Your task to perform on an android device: check google app version Image 0: 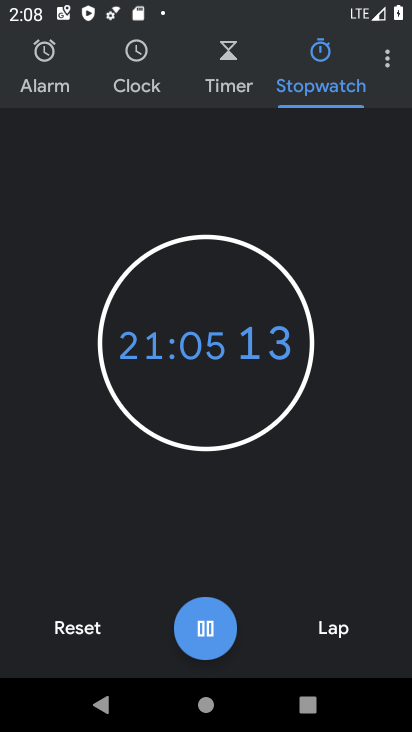
Step 0: drag from (128, 265) to (144, 424)
Your task to perform on an android device: check google app version Image 1: 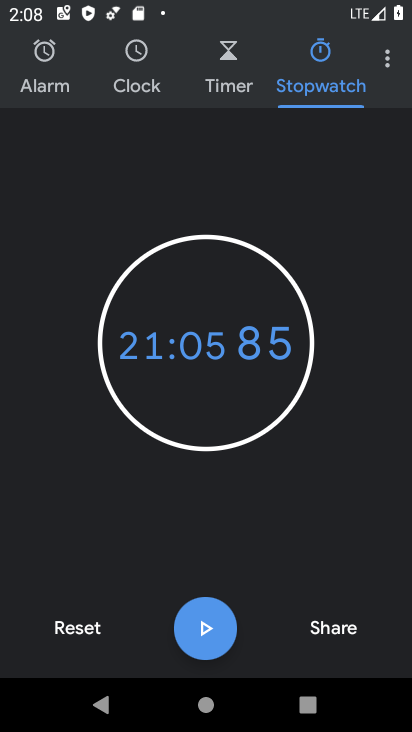
Step 1: press home button
Your task to perform on an android device: check google app version Image 2: 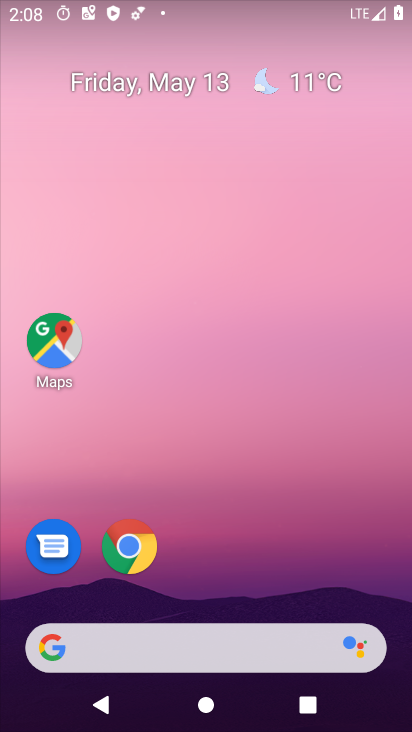
Step 2: drag from (174, 596) to (241, 213)
Your task to perform on an android device: check google app version Image 3: 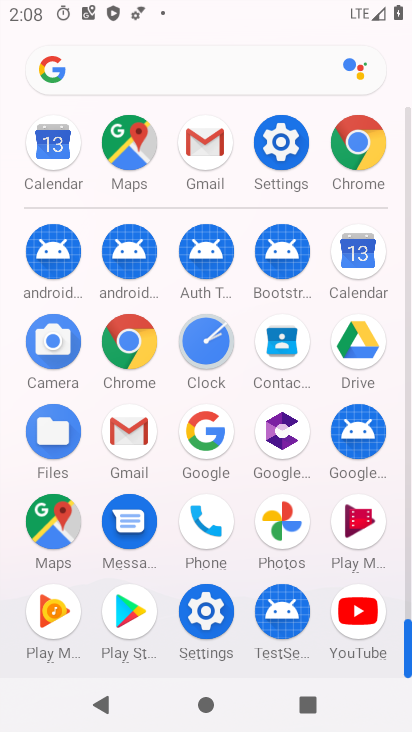
Step 3: click (278, 163)
Your task to perform on an android device: check google app version Image 4: 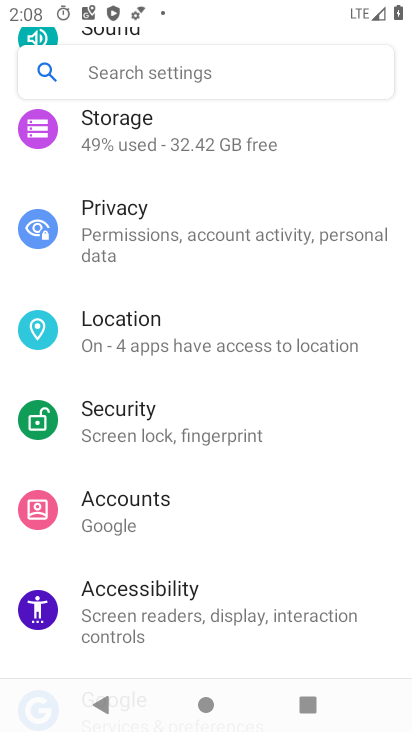
Step 4: press home button
Your task to perform on an android device: check google app version Image 5: 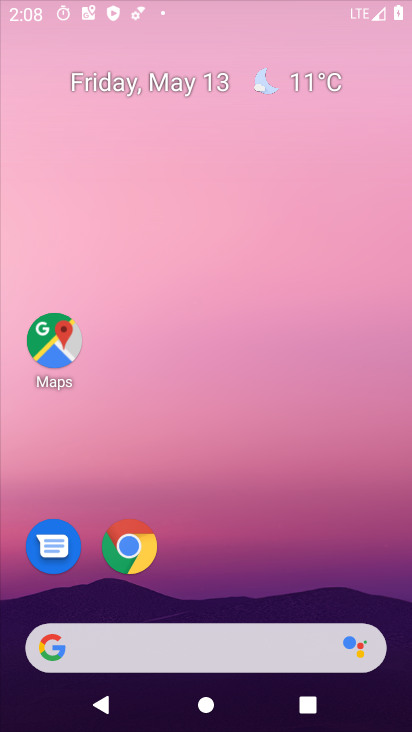
Step 5: drag from (205, 533) to (312, 103)
Your task to perform on an android device: check google app version Image 6: 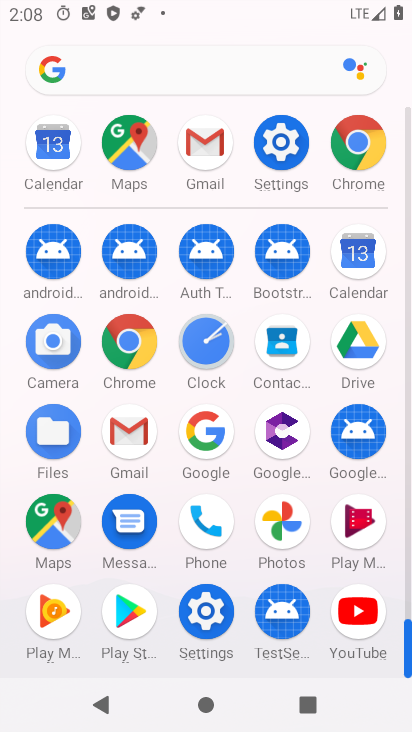
Step 6: click (196, 430)
Your task to perform on an android device: check google app version Image 7: 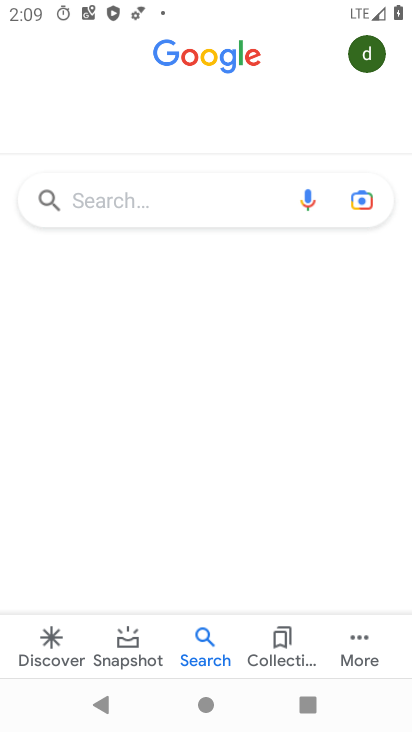
Step 7: click (381, 653)
Your task to perform on an android device: check google app version Image 8: 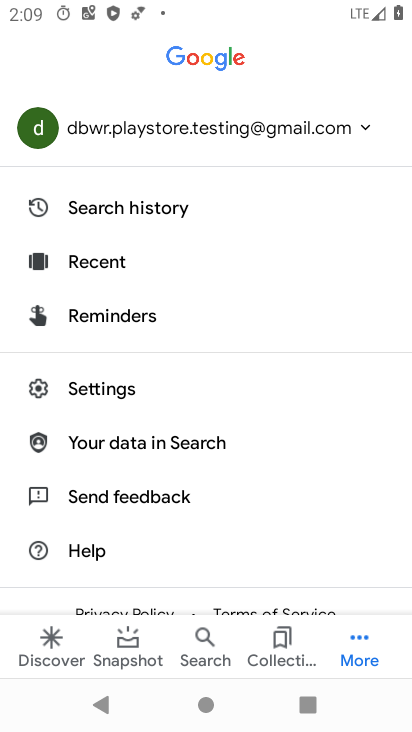
Step 8: click (110, 385)
Your task to perform on an android device: check google app version Image 9: 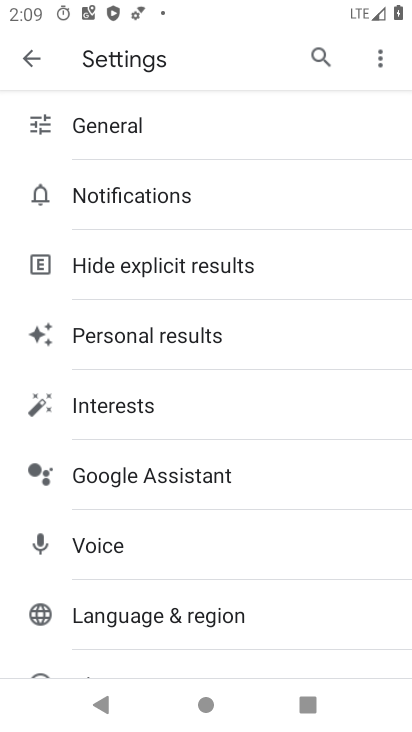
Step 9: drag from (196, 519) to (263, 155)
Your task to perform on an android device: check google app version Image 10: 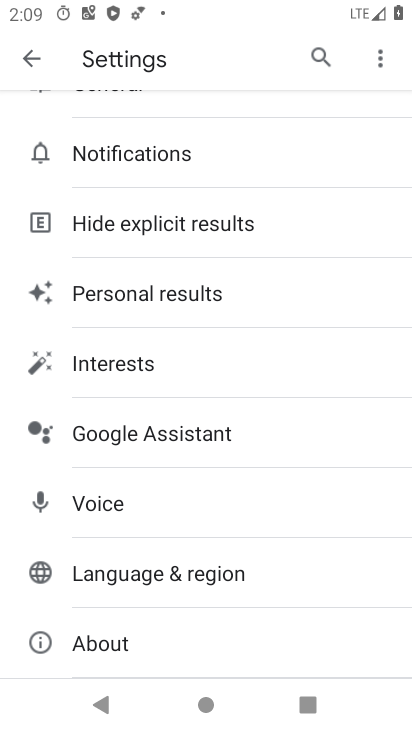
Step 10: drag from (197, 507) to (270, 215)
Your task to perform on an android device: check google app version Image 11: 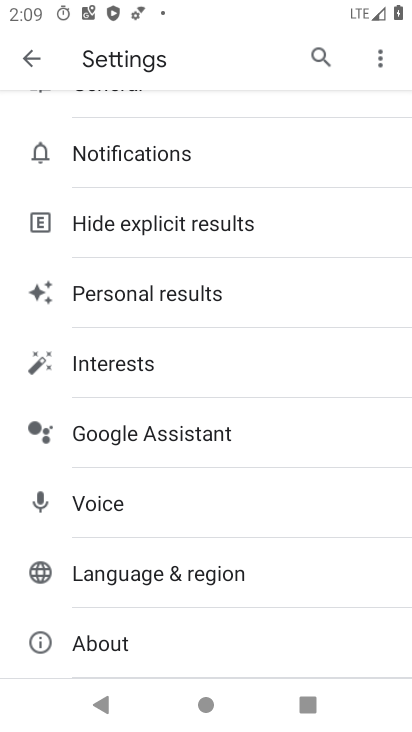
Step 11: drag from (213, 443) to (202, 624)
Your task to perform on an android device: check google app version Image 12: 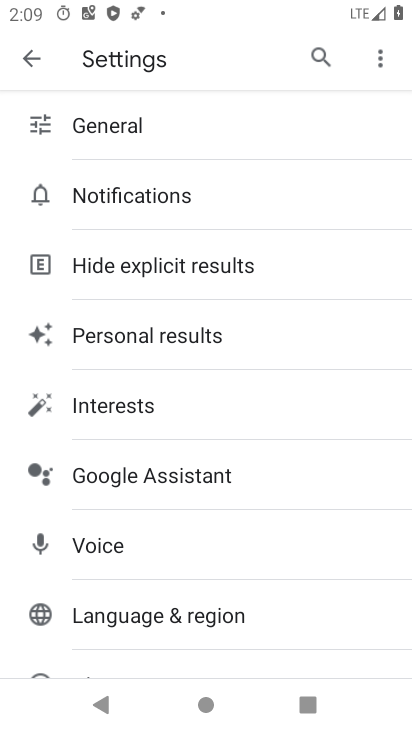
Step 12: drag from (196, 526) to (280, 154)
Your task to perform on an android device: check google app version Image 13: 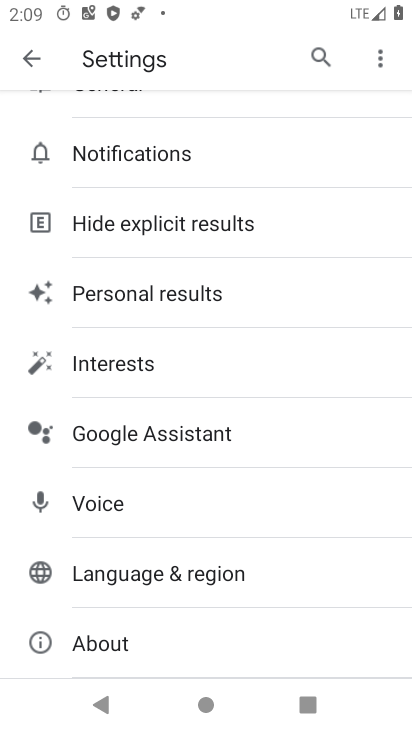
Step 13: click (157, 657)
Your task to perform on an android device: check google app version Image 14: 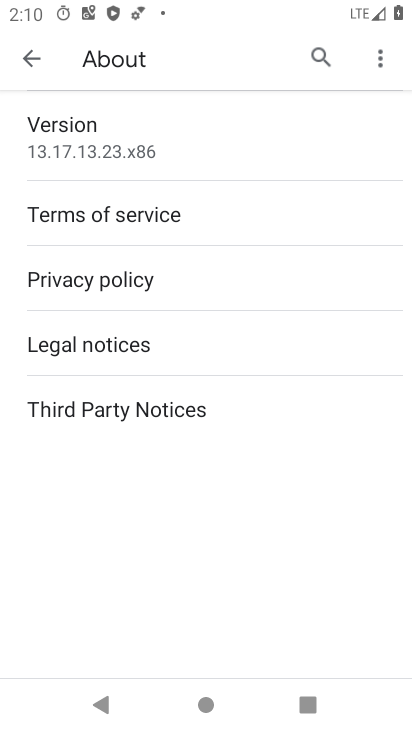
Step 14: task complete